Your task to perform on an android device: turn off translation in the chrome app Image 0: 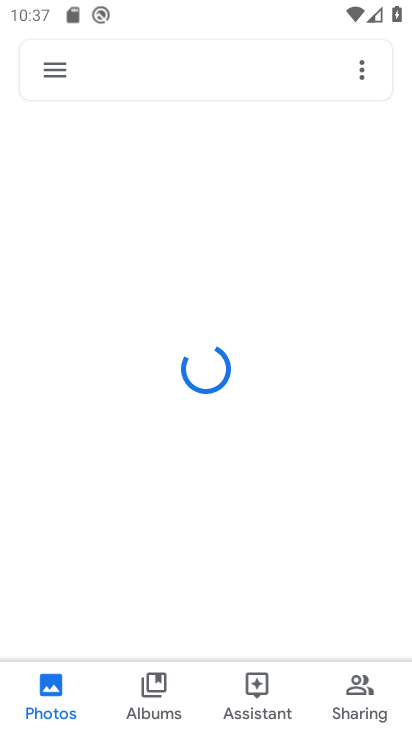
Step 0: press home button
Your task to perform on an android device: turn off translation in the chrome app Image 1: 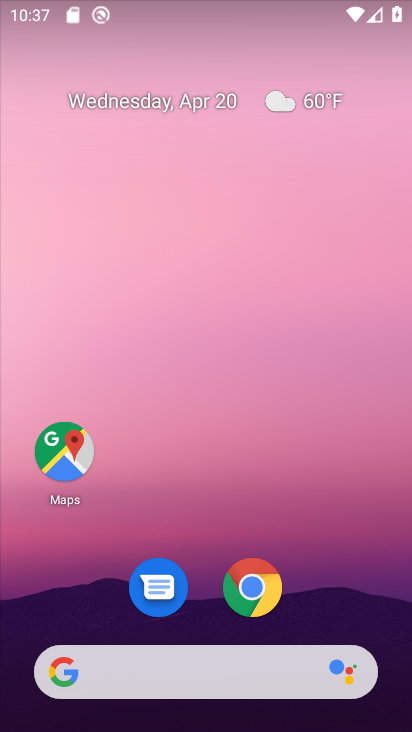
Step 1: click (248, 583)
Your task to perform on an android device: turn off translation in the chrome app Image 2: 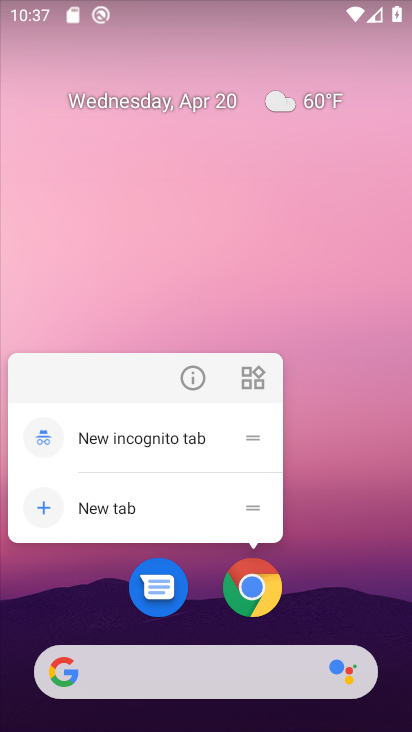
Step 2: click (252, 578)
Your task to perform on an android device: turn off translation in the chrome app Image 3: 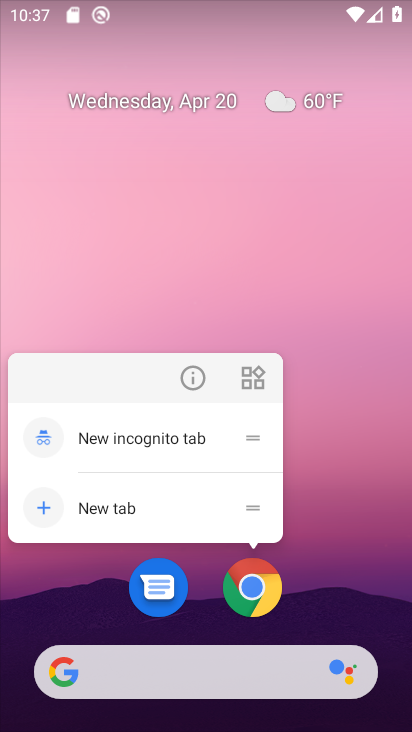
Step 3: click (328, 512)
Your task to perform on an android device: turn off translation in the chrome app Image 4: 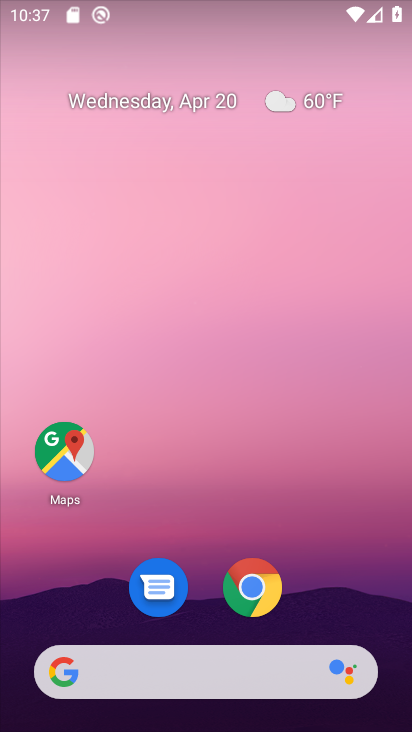
Step 4: click (109, 219)
Your task to perform on an android device: turn off translation in the chrome app Image 5: 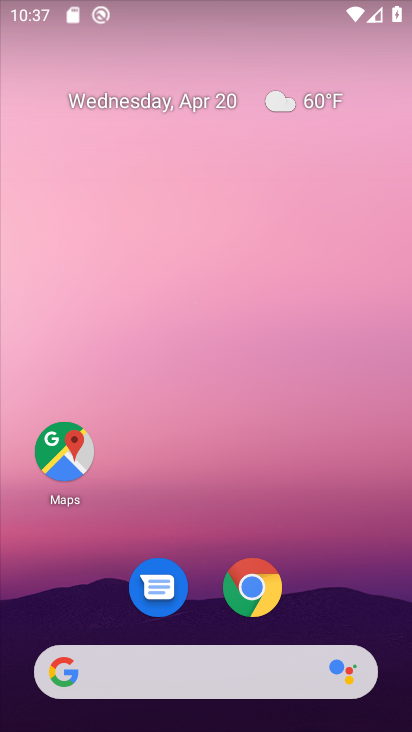
Step 5: click (251, 579)
Your task to perform on an android device: turn off translation in the chrome app Image 6: 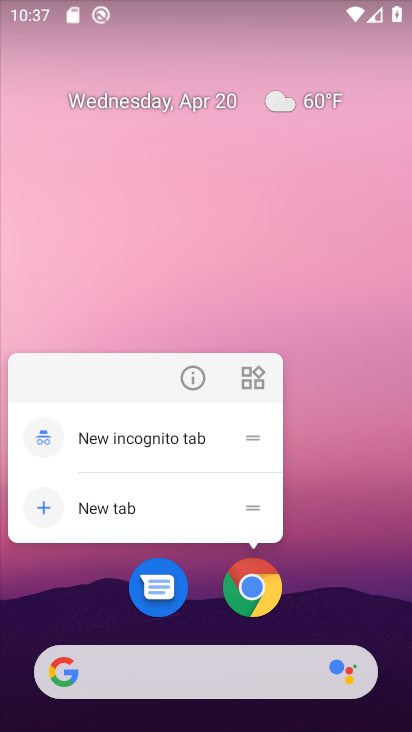
Step 6: click (354, 405)
Your task to perform on an android device: turn off translation in the chrome app Image 7: 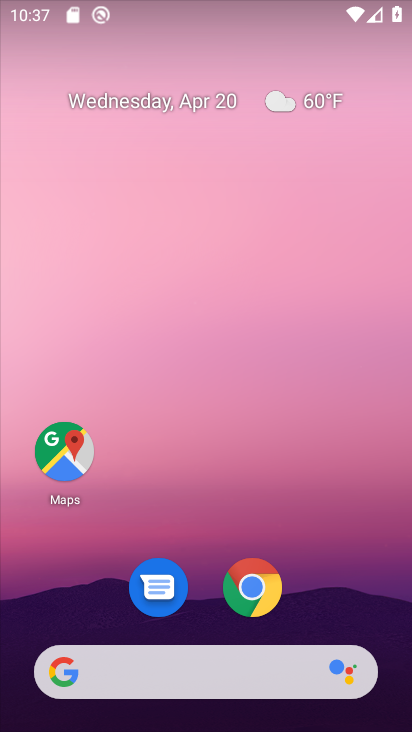
Step 7: click (147, 246)
Your task to perform on an android device: turn off translation in the chrome app Image 8: 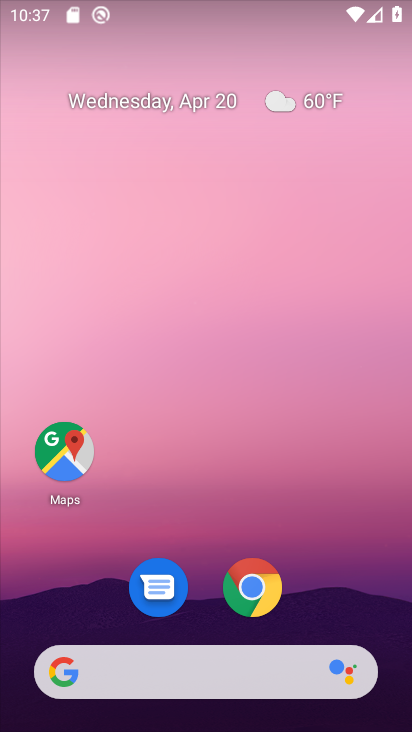
Step 8: click (271, 211)
Your task to perform on an android device: turn off translation in the chrome app Image 9: 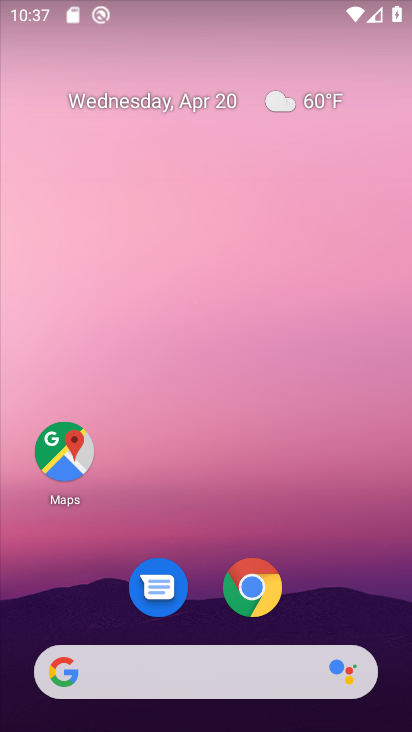
Step 9: click (244, 585)
Your task to perform on an android device: turn off translation in the chrome app Image 10: 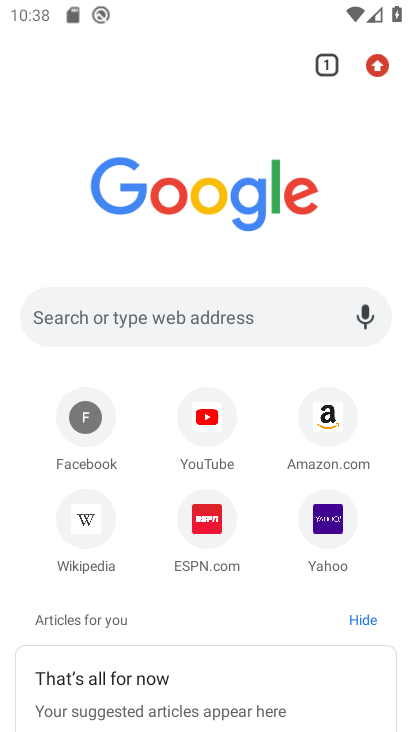
Step 10: click (380, 61)
Your task to perform on an android device: turn off translation in the chrome app Image 11: 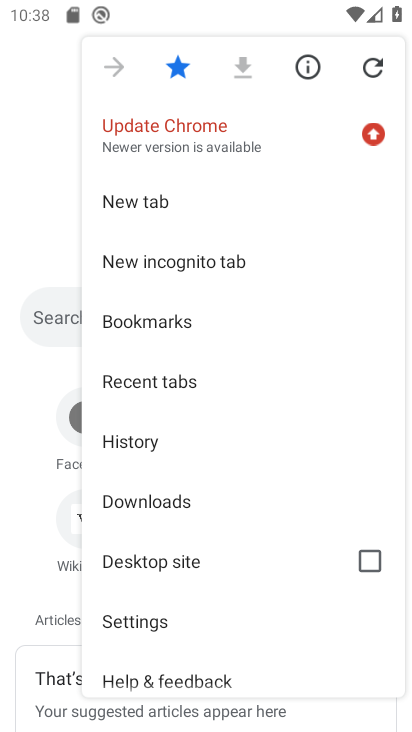
Step 11: click (174, 617)
Your task to perform on an android device: turn off translation in the chrome app Image 12: 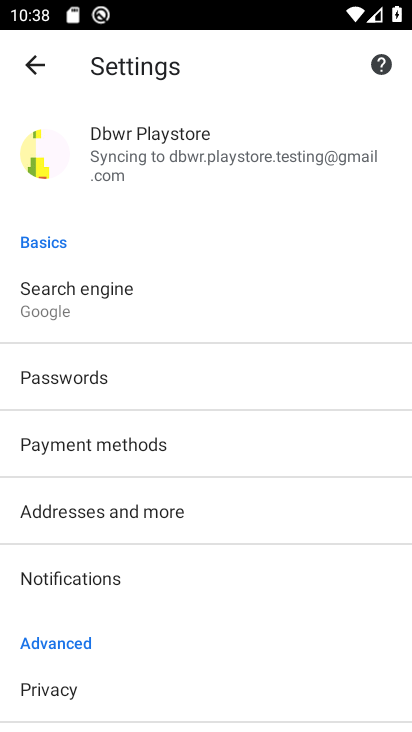
Step 12: drag from (215, 669) to (227, 169)
Your task to perform on an android device: turn off translation in the chrome app Image 13: 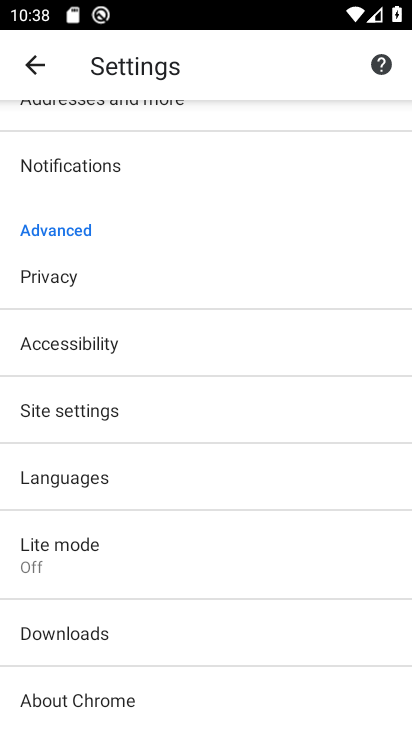
Step 13: click (121, 480)
Your task to perform on an android device: turn off translation in the chrome app Image 14: 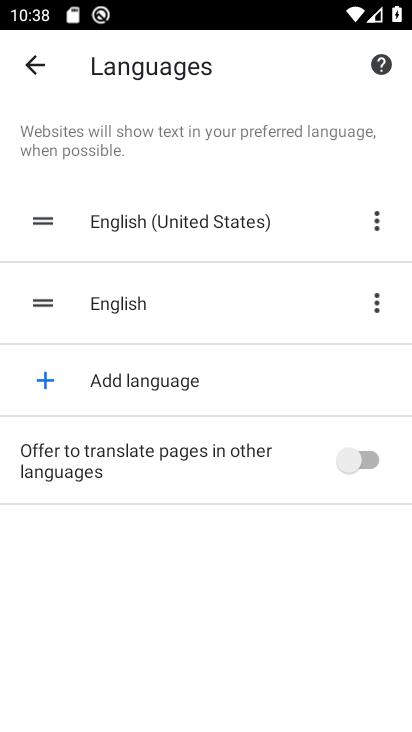
Step 14: task complete